Your task to perform on an android device: change timer sound Image 0: 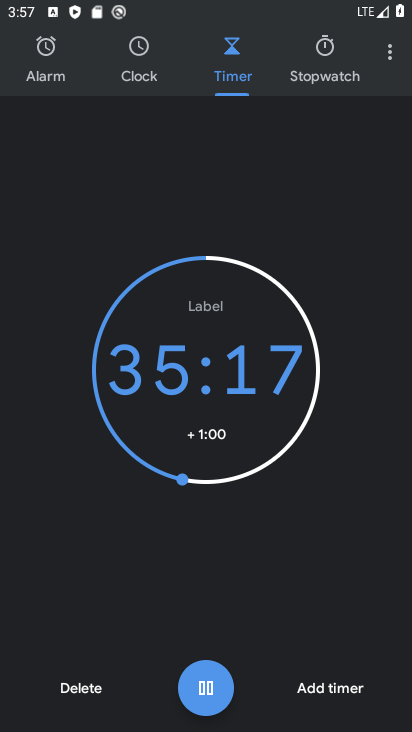
Step 0: click (394, 62)
Your task to perform on an android device: change timer sound Image 1: 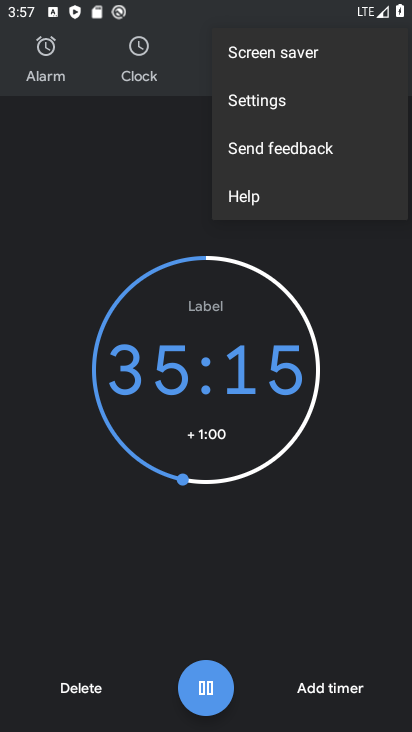
Step 1: click (274, 103)
Your task to perform on an android device: change timer sound Image 2: 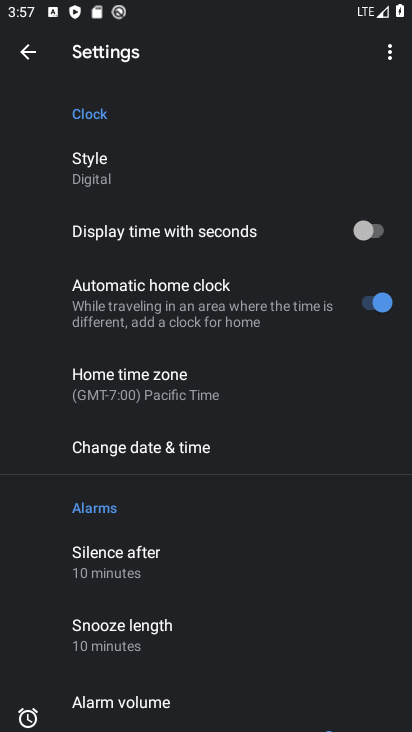
Step 2: drag from (183, 651) to (205, 431)
Your task to perform on an android device: change timer sound Image 3: 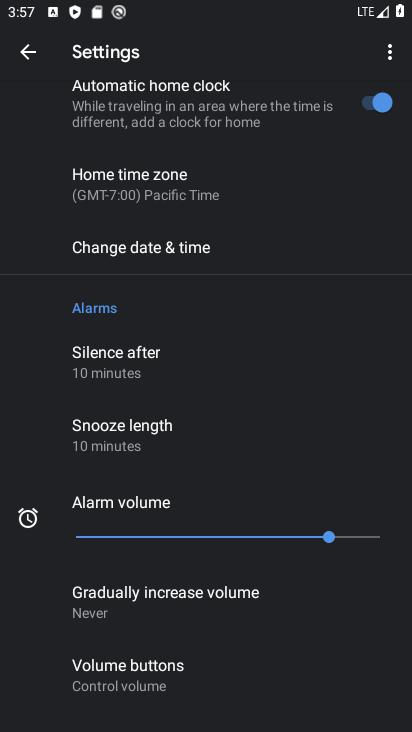
Step 3: drag from (201, 663) to (224, 299)
Your task to perform on an android device: change timer sound Image 4: 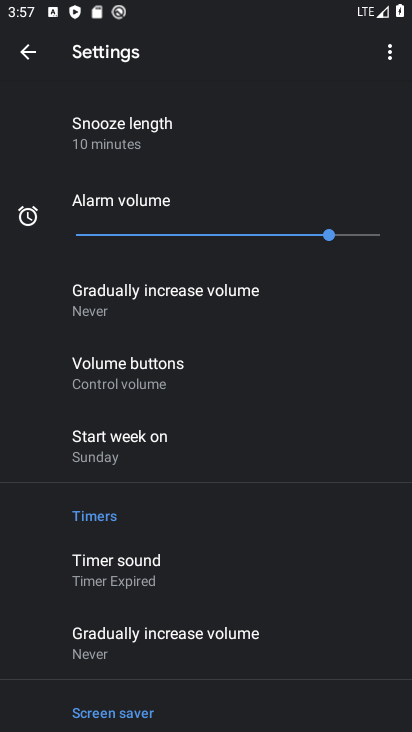
Step 4: click (179, 585)
Your task to perform on an android device: change timer sound Image 5: 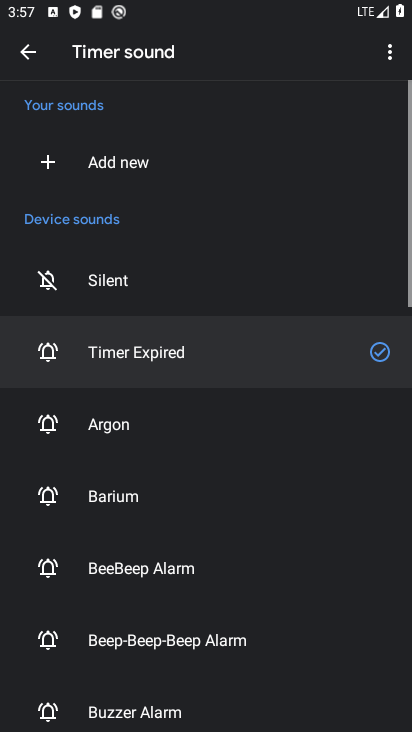
Step 5: click (173, 443)
Your task to perform on an android device: change timer sound Image 6: 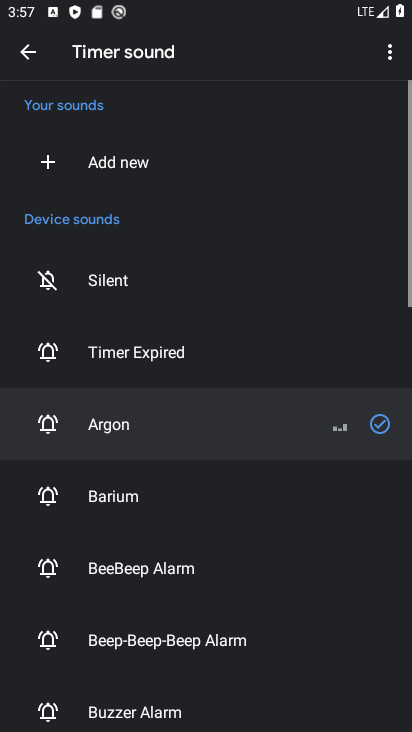
Step 6: task complete